Your task to perform on an android device: turn off location Image 0: 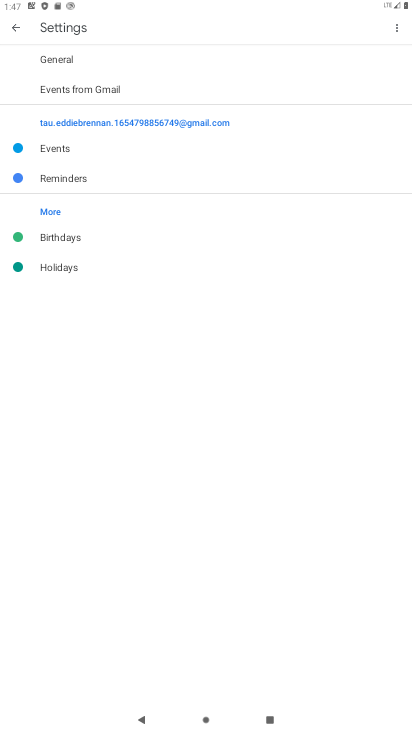
Step 0: press home button
Your task to perform on an android device: turn off location Image 1: 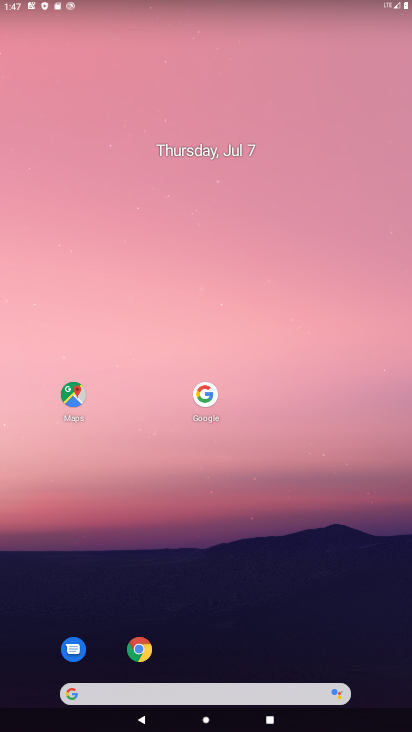
Step 1: drag from (335, 575) to (334, 21)
Your task to perform on an android device: turn off location Image 2: 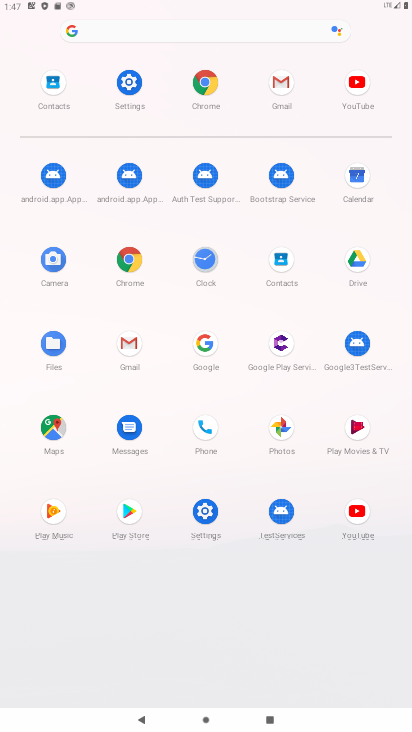
Step 2: click (145, 89)
Your task to perform on an android device: turn off location Image 3: 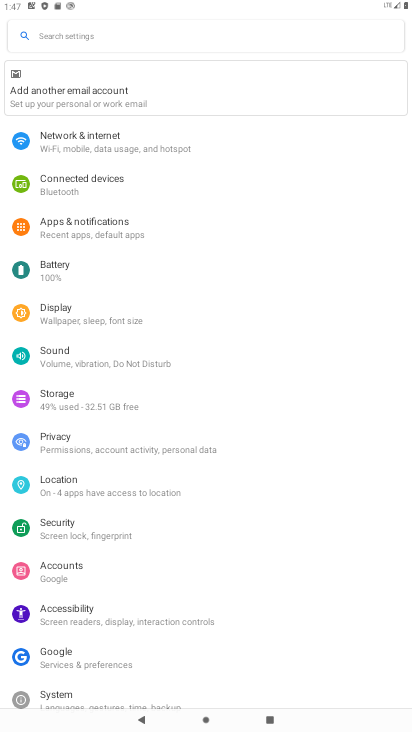
Step 3: click (132, 494)
Your task to perform on an android device: turn off location Image 4: 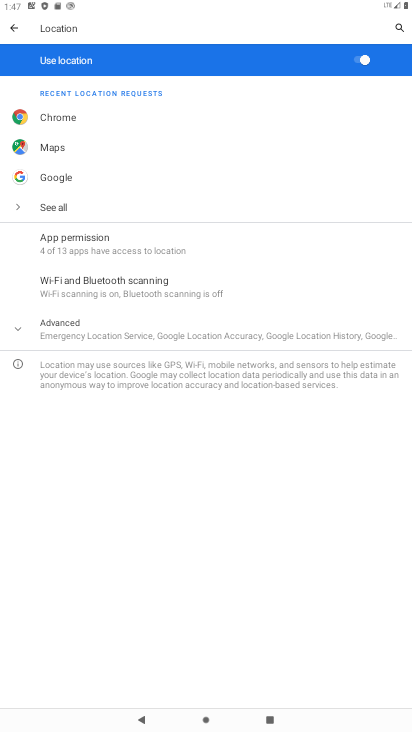
Step 4: click (358, 59)
Your task to perform on an android device: turn off location Image 5: 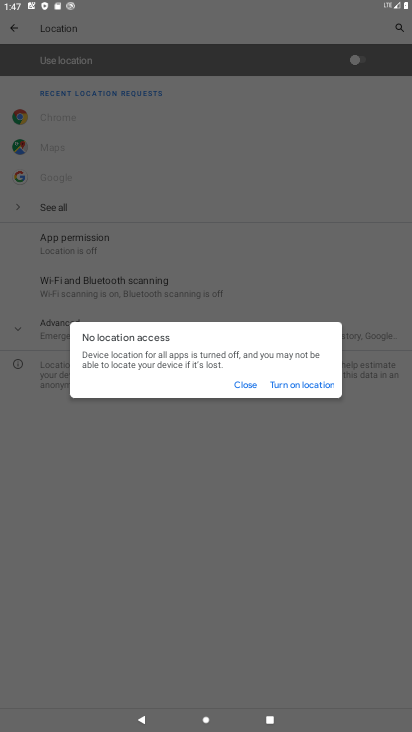
Step 5: click (255, 382)
Your task to perform on an android device: turn off location Image 6: 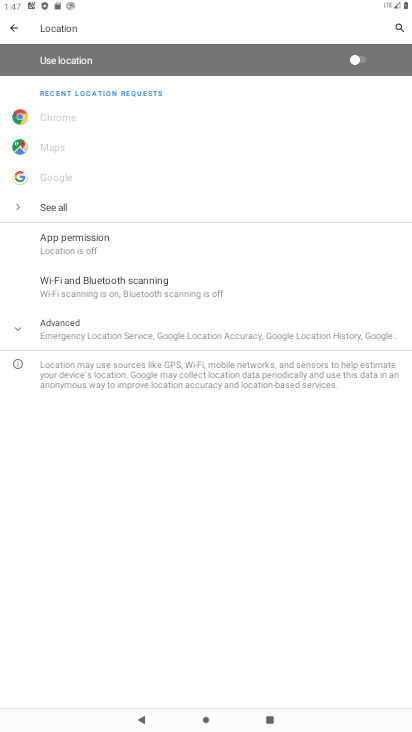
Step 6: task complete